Your task to perform on an android device: Open the map Image 0: 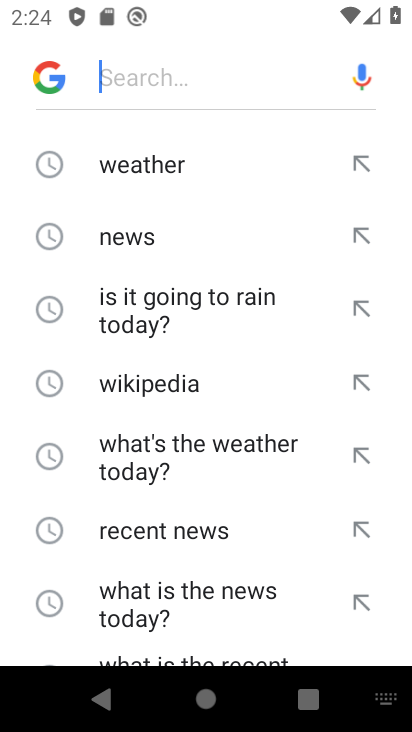
Step 0: press home button
Your task to perform on an android device: Open the map Image 1: 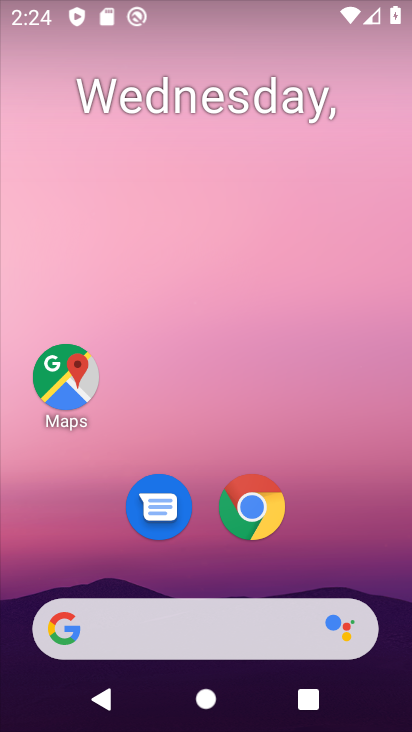
Step 1: click (68, 368)
Your task to perform on an android device: Open the map Image 2: 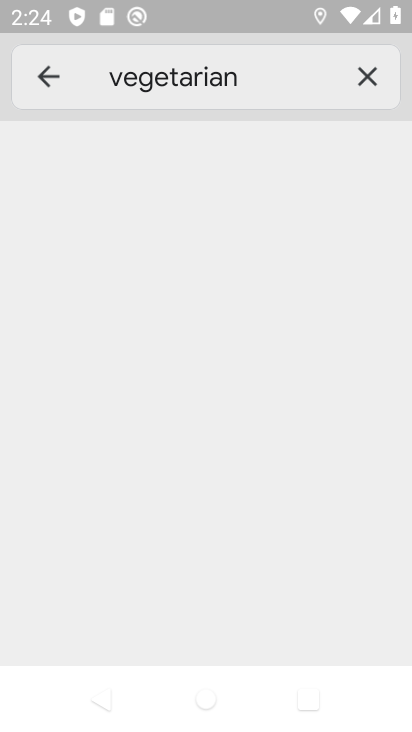
Step 2: click (50, 64)
Your task to perform on an android device: Open the map Image 3: 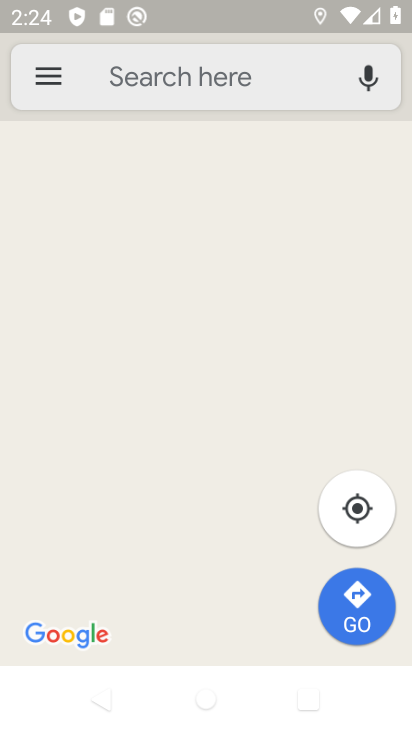
Step 3: task complete